Your task to perform on an android device: clear history in the chrome app Image 0: 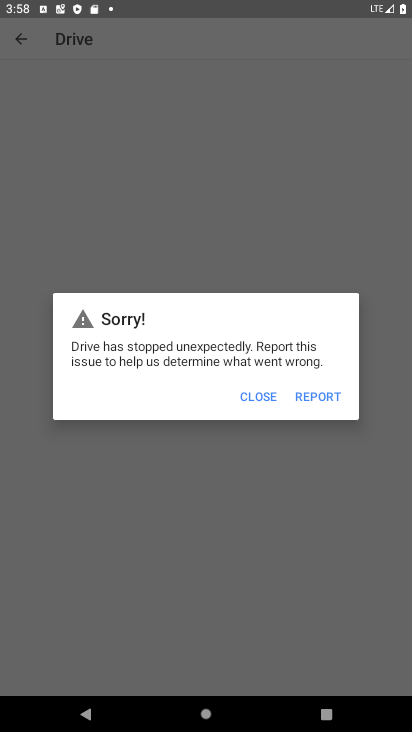
Step 0: press home button
Your task to perform on an android device: clear history in the chrome app Image 1: 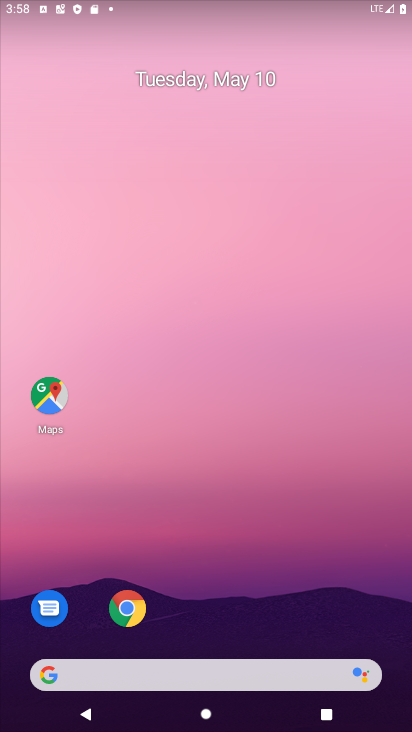
Step 1: click (128, 607)
Your task to perform on an android device: clear history in the chrome app Image 2: 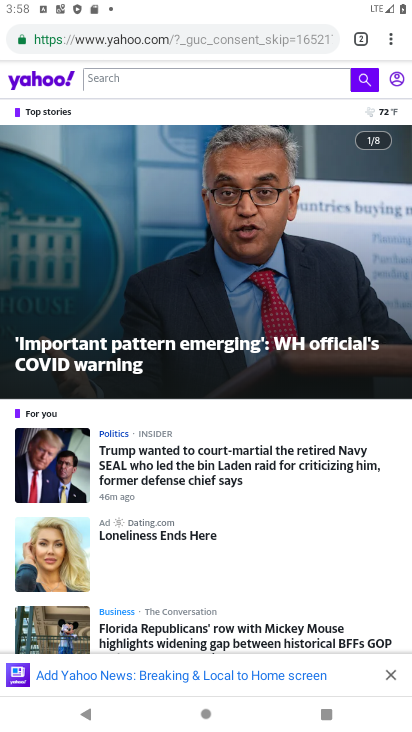
Step 2: click (391, 41)
Your task to perform on an android device: clear history in the chrome app Image 3: 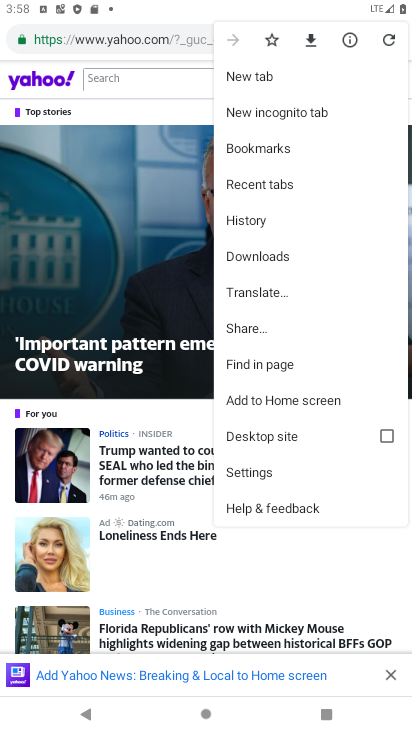
Step 3: click (248, 222)
Your task to perform on an android device: clear history in the chrome app Image 4: 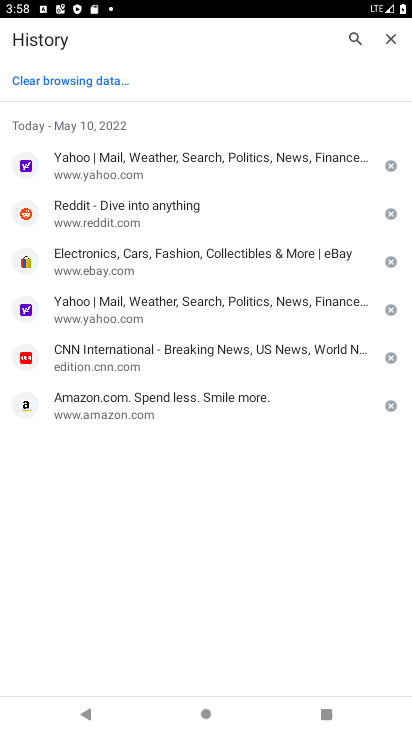
Step 4: click (54, 82)
Your task to perform on an android device: clear history in the chrome app Image 5: 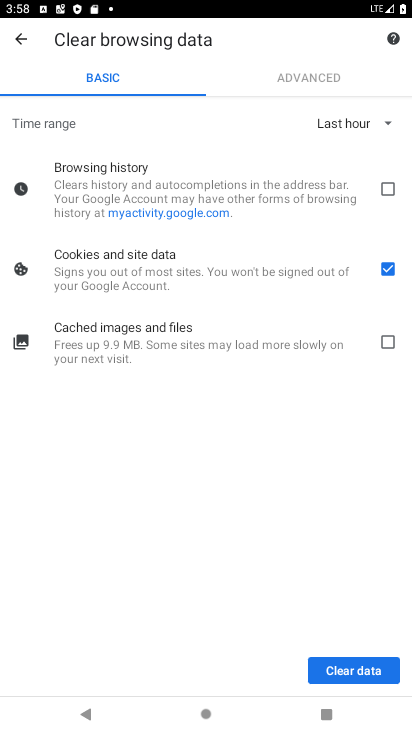
Step 5: click (388, 186)
Your task to perform on an android device: clear history in the chrome app Image 6: 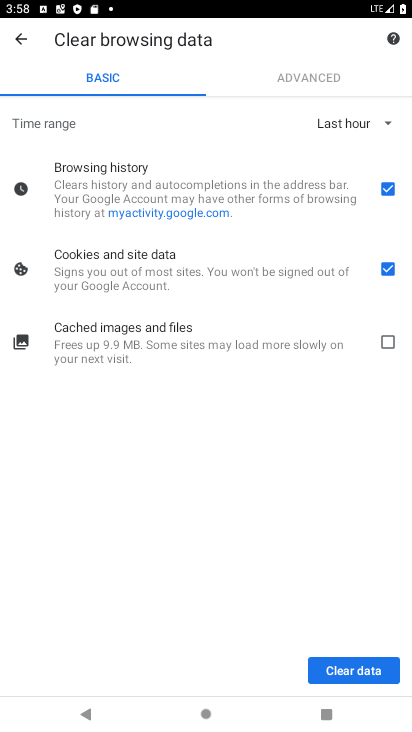
Step 6: click (390, 275)
Your task to perform on an android device: clear history in the chrome app Image 7: 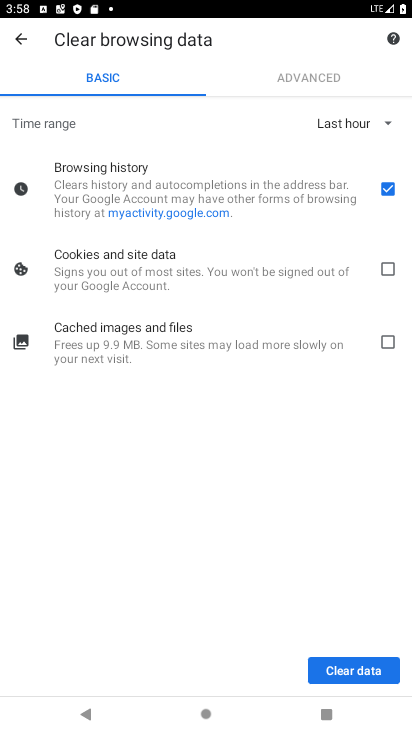
Step 7: click (349, 671)
Your task to perform on an android device: clear history in the chrome app Image 8: 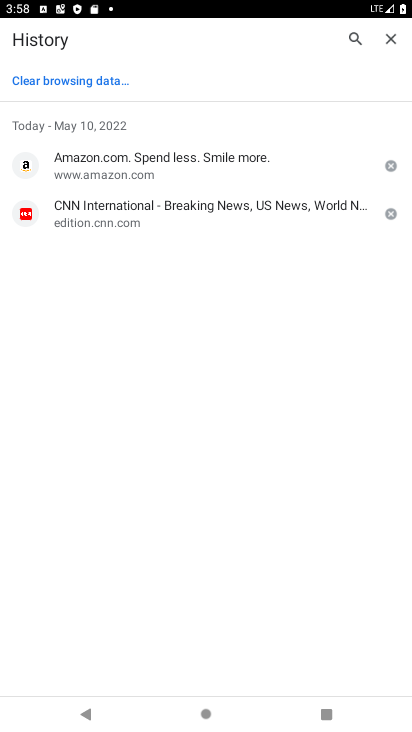
Step 8: task complete